Your task to perform on an android device: Search for logitech g pro on walmart, select the first entry, add it to the cart, then select checkout. Image 0: 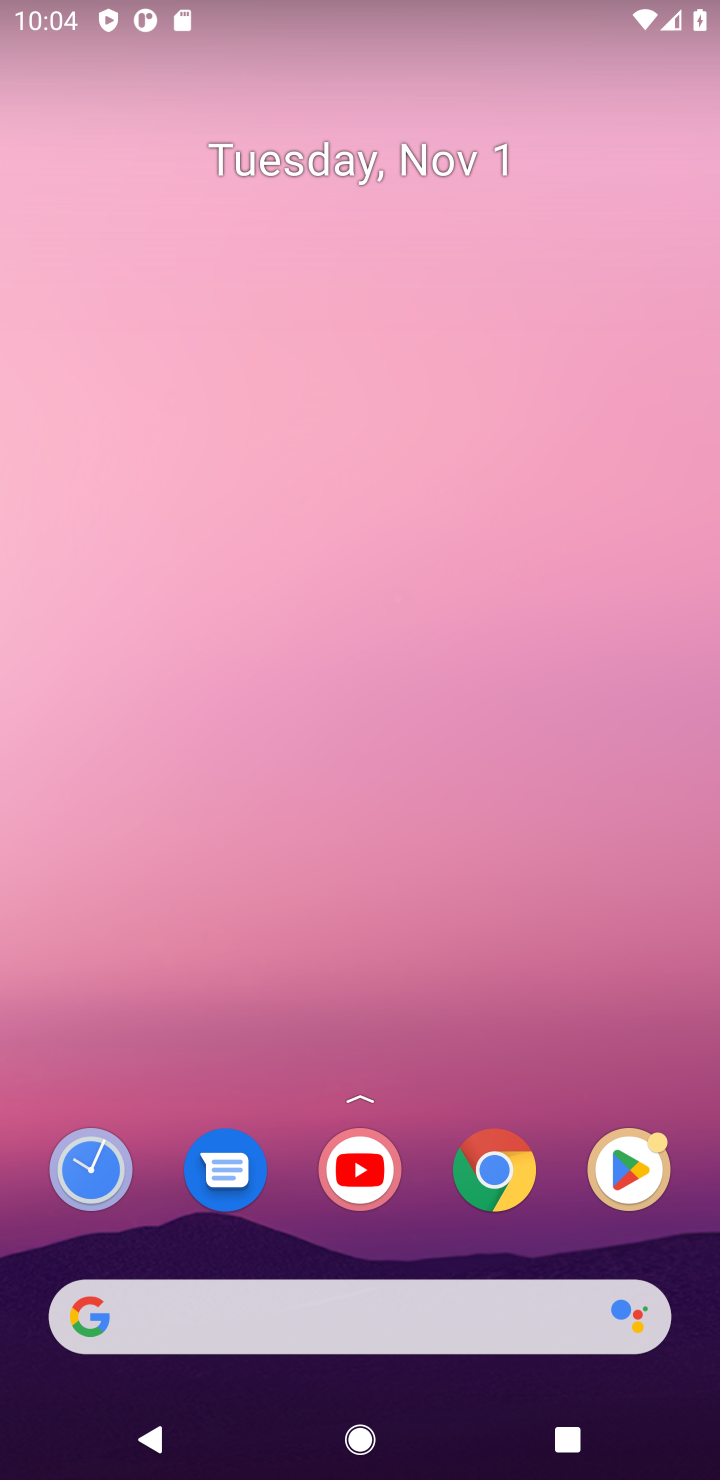
Step 0: press home button
Your task to perform on an android device: Search for logitech g pro on walmart, select the first entry, add it to the cart, then select checkout. Image 1: 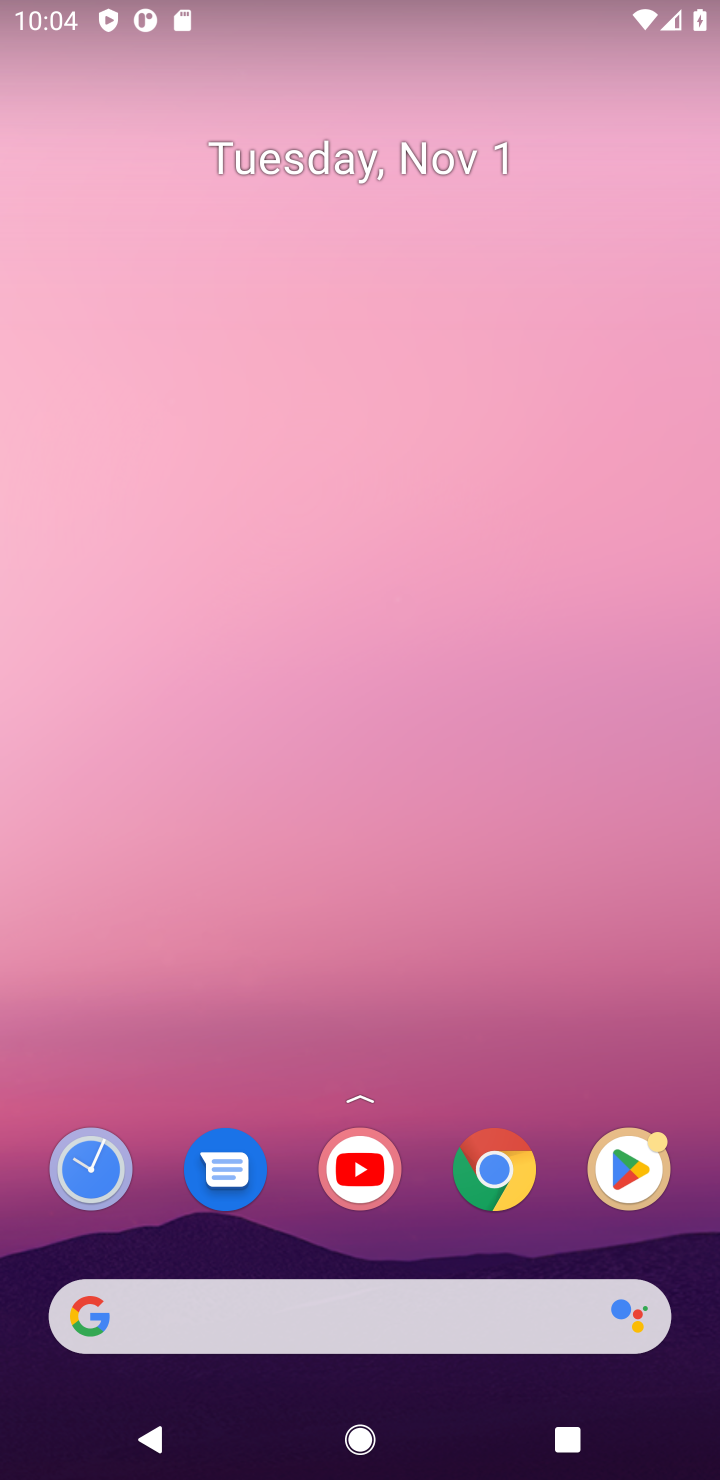
Step 1: click (495, 1171)
Your task to perform on an android device: Search for logitech g pro on walmart, select the first entry, add it to the cart, then select checkout. Image 2: 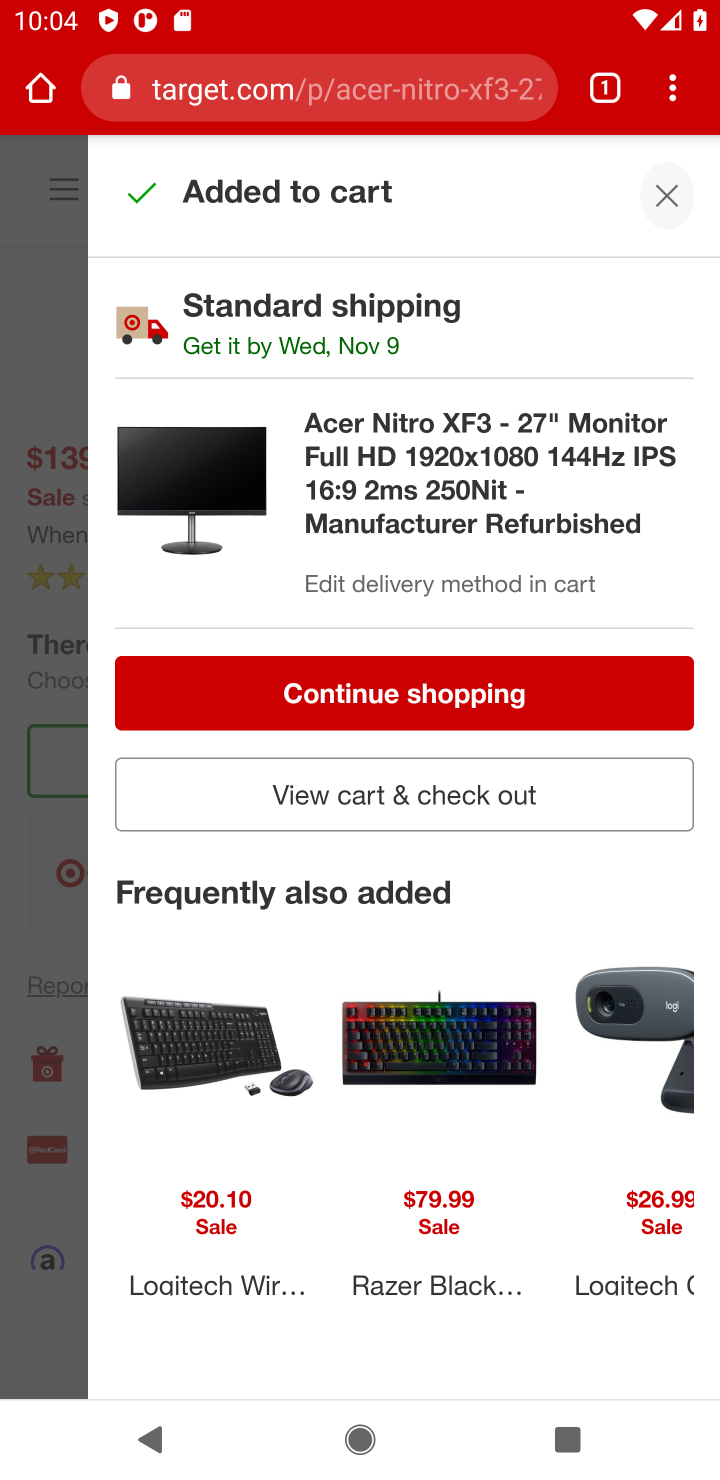
Step 2: click (393, 87)
Your task to perform on an android device: Search for logitech g pro on walmart, select the first entry, add it to the cart, then select checkout. Image 3: 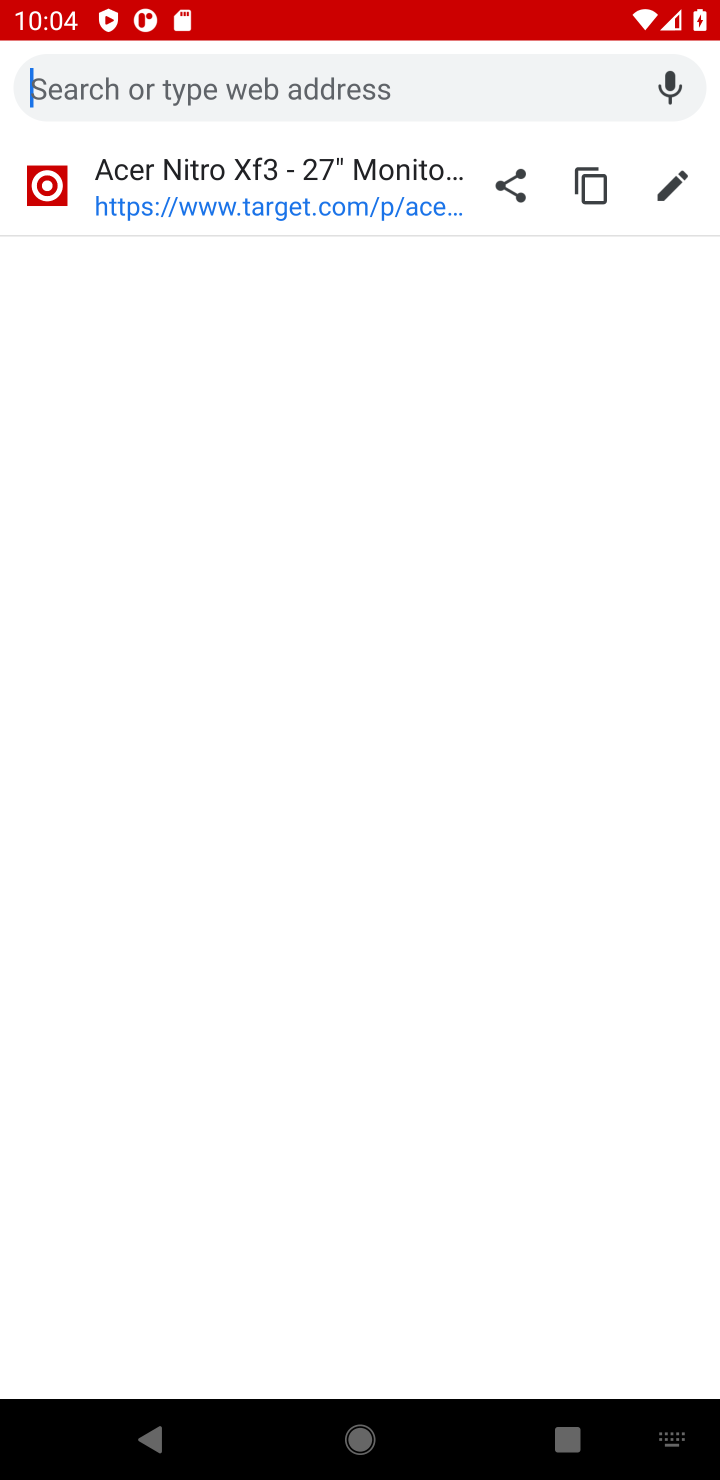
Step 3: press enter
Your task to perform on an android device: Search for logitech g pro on walmart, select the first entry, add it to the cart, then select checkout. Image 4: 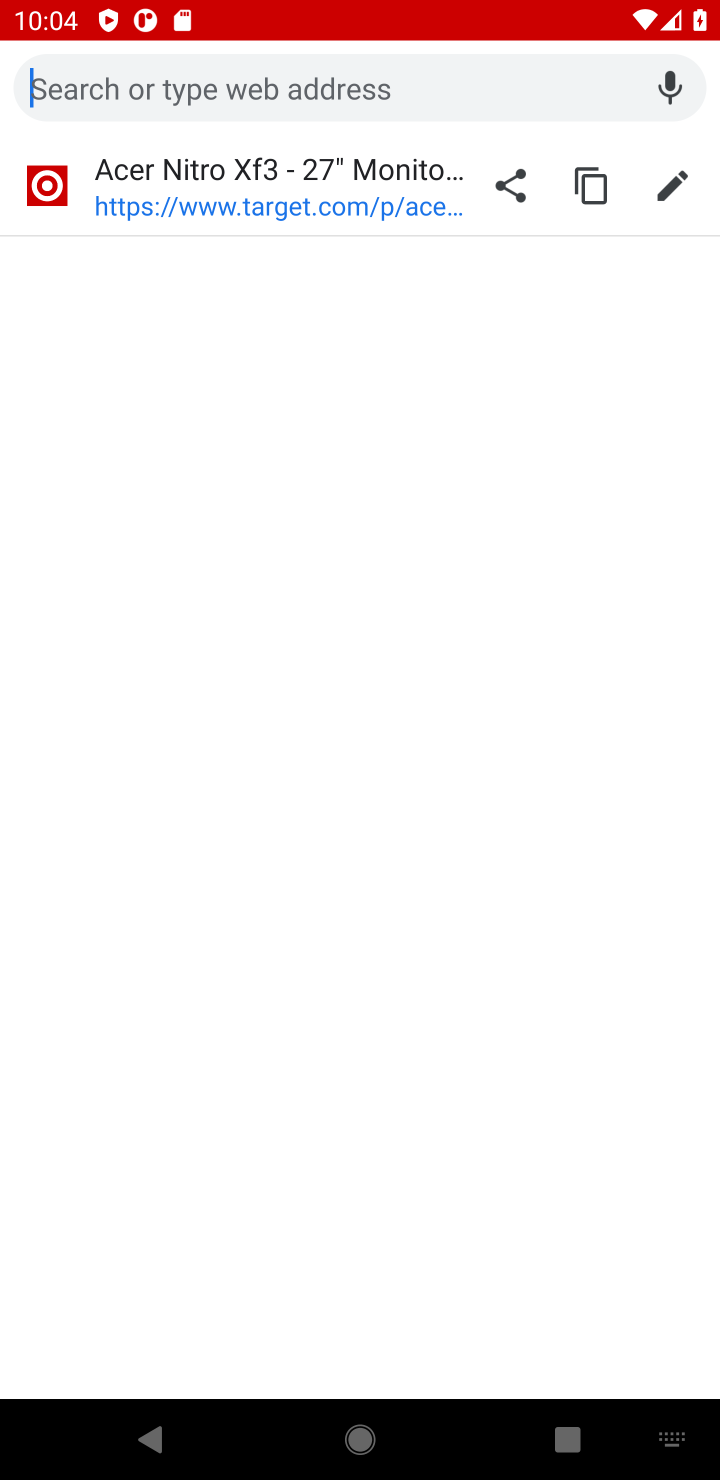
Step 4: type "walmart"
Your task to perform on an android device: Search for logitech g pro on walmart, select the first entry, add it to the cart, then select checkout. Image 5: 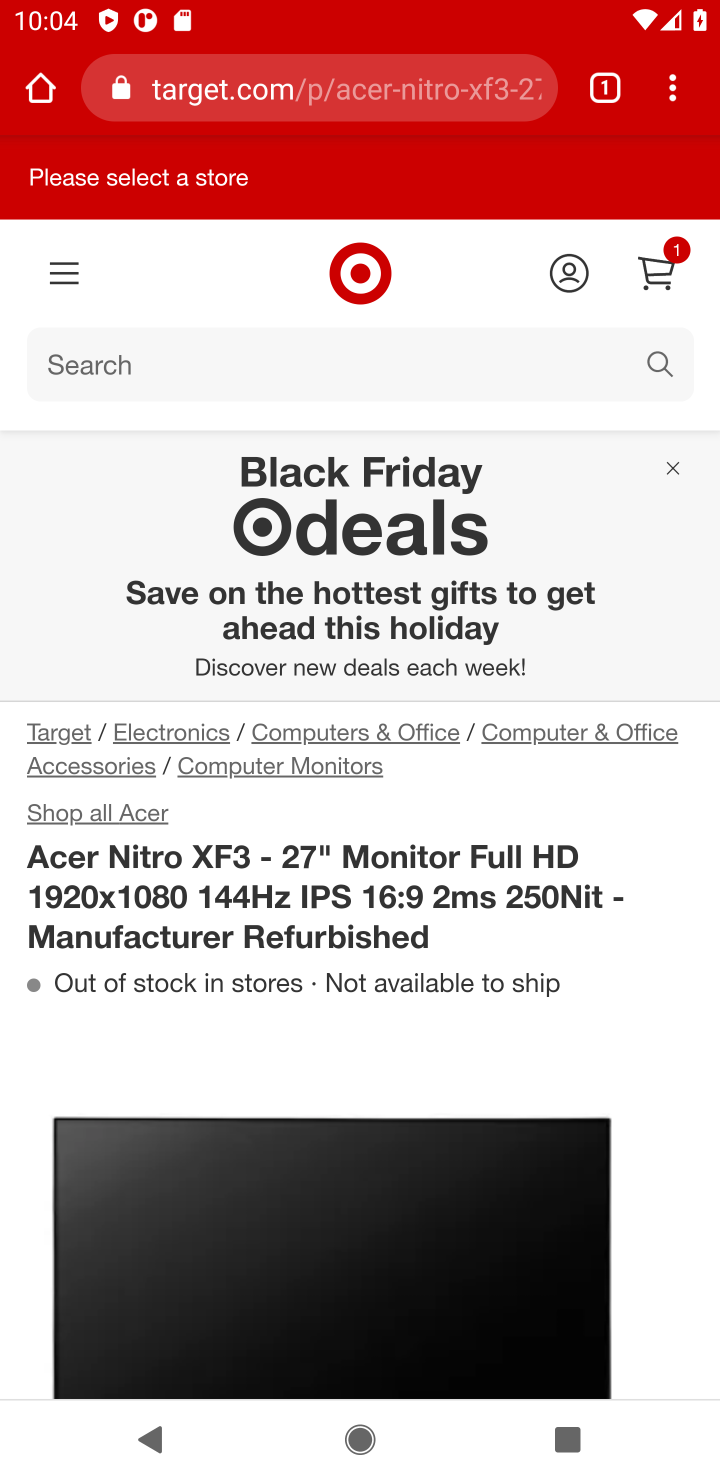
Step 5: click (345, 71)
Your task to perform on an android device: Search for logitech g pro on walmart, select the first entry, add it to the cart, then select checkout. Image 6: 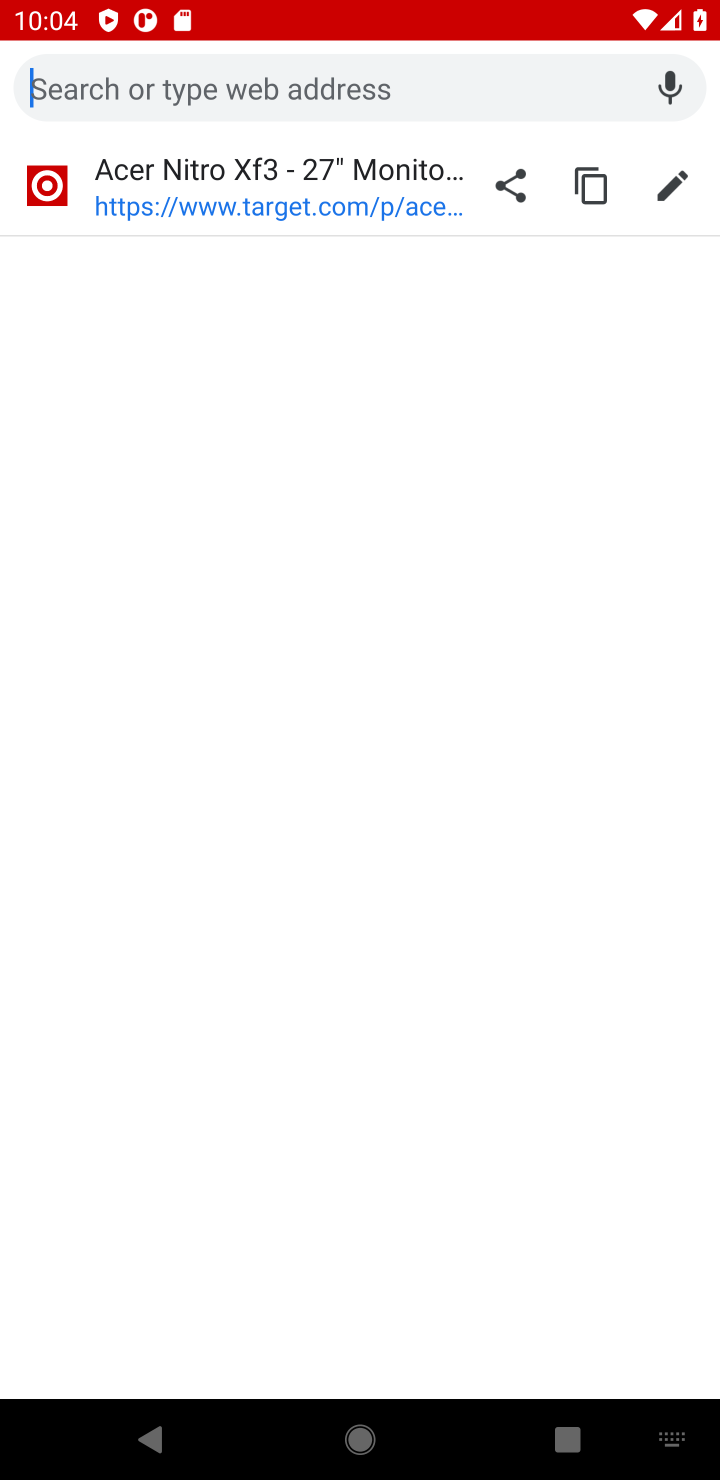
Step 6: type "walmart"
Your task to perform on an android device: Search for logitech g pro on walmart, select the first entry, add it to the cart, then select checkout. Image 7: 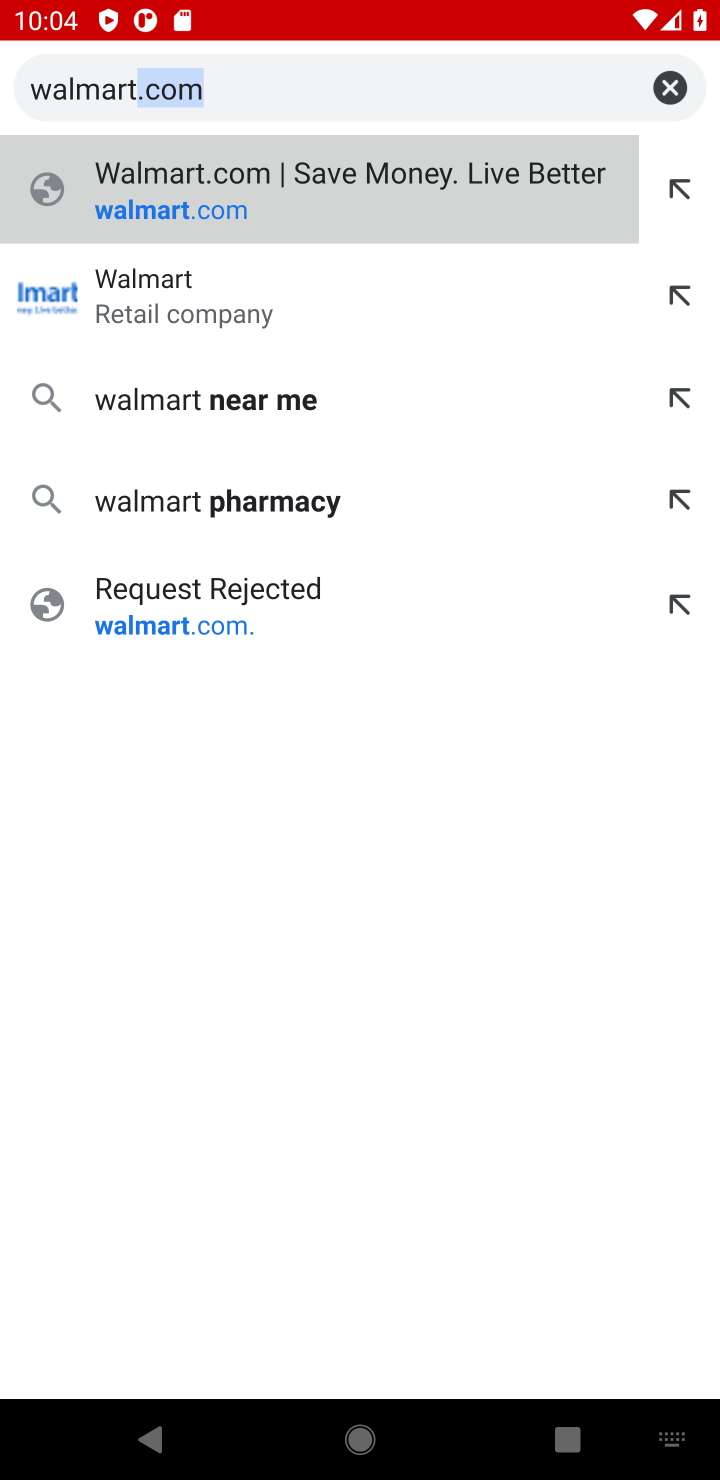
Step 7: press enter
Your task to perform on an android device: Search for logitech g pro on walmart, select the first entry, add it to the cart, then select checkout. Image 8: 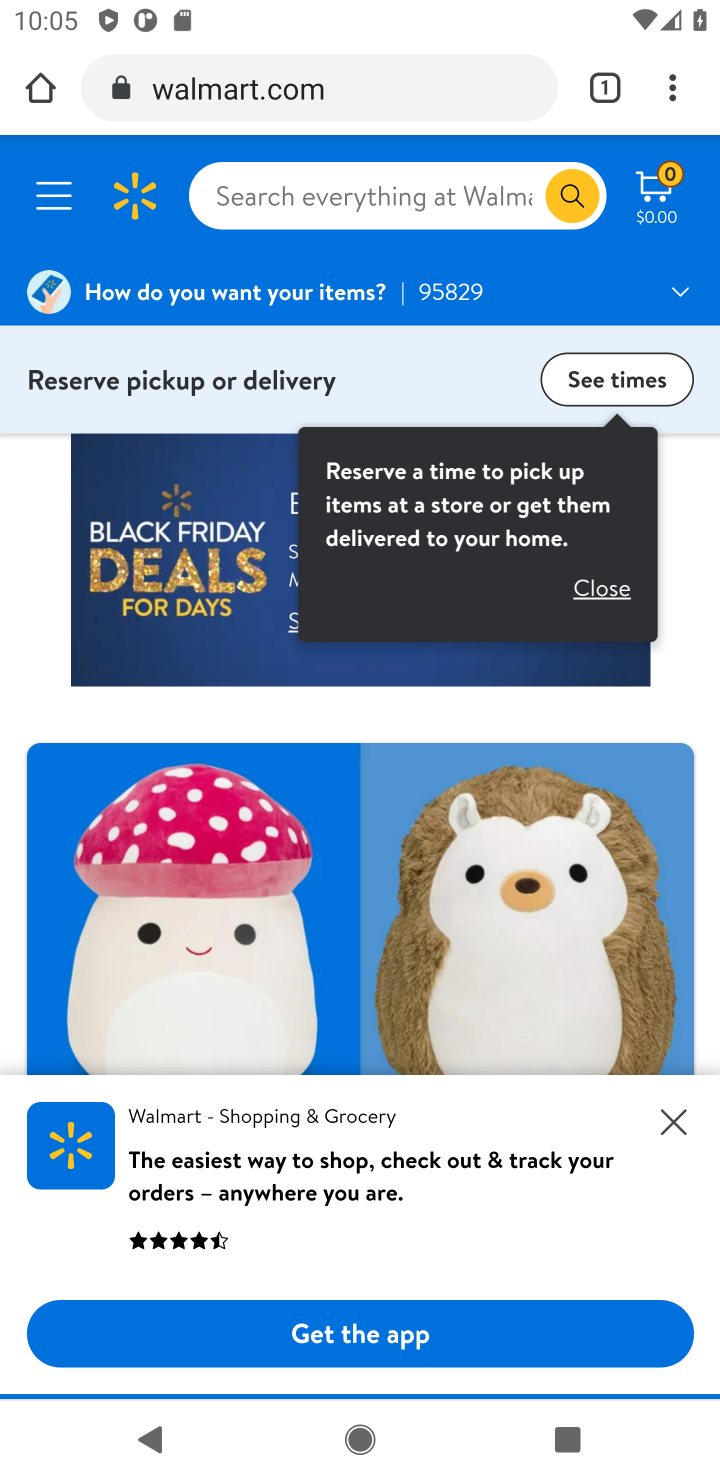
Step 8: click (281, 187)
Your task to perform on an android device: Search for logitech g pro on walmart, select the first entry, add it to the cart, then select checkout. Image 9: 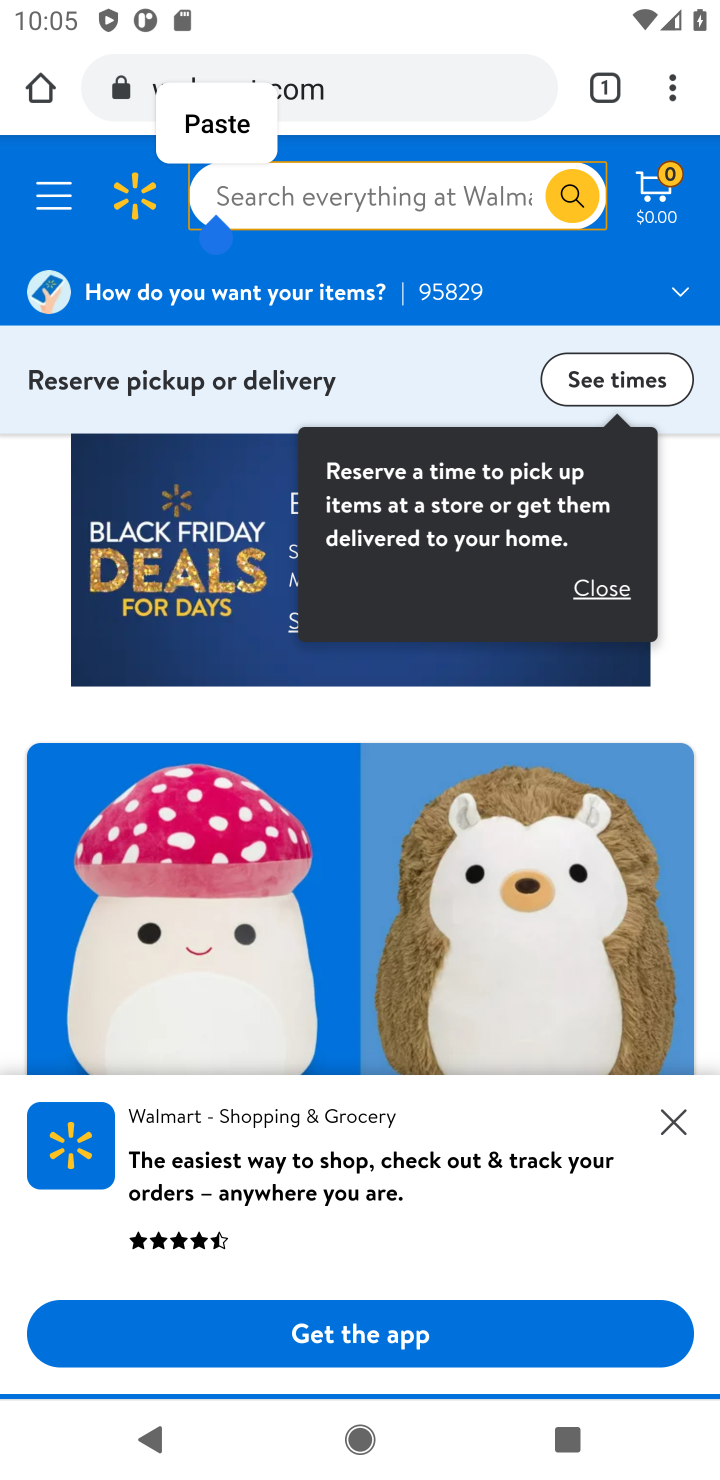
Step 9: type "logitech g pro "
Your task to perform on an android device: Search for logitech g pro on walmart, select the first entry, add it to the cart, then select checkout. Image 10: 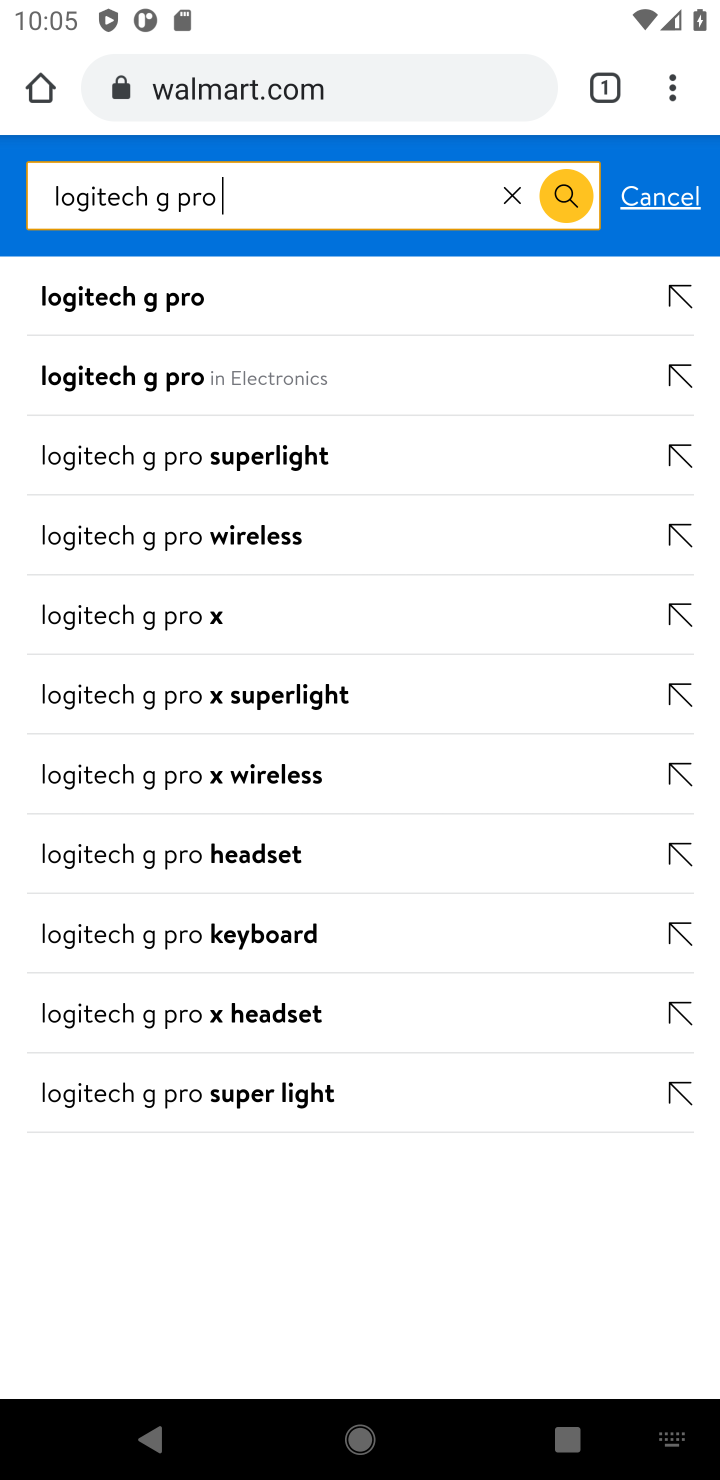
Step 10: click (115, 285)
Your task to perform on an android device: Search for logitech g pro on walmart, select the first entry, add it to the cart, then select checkout. Image 11: 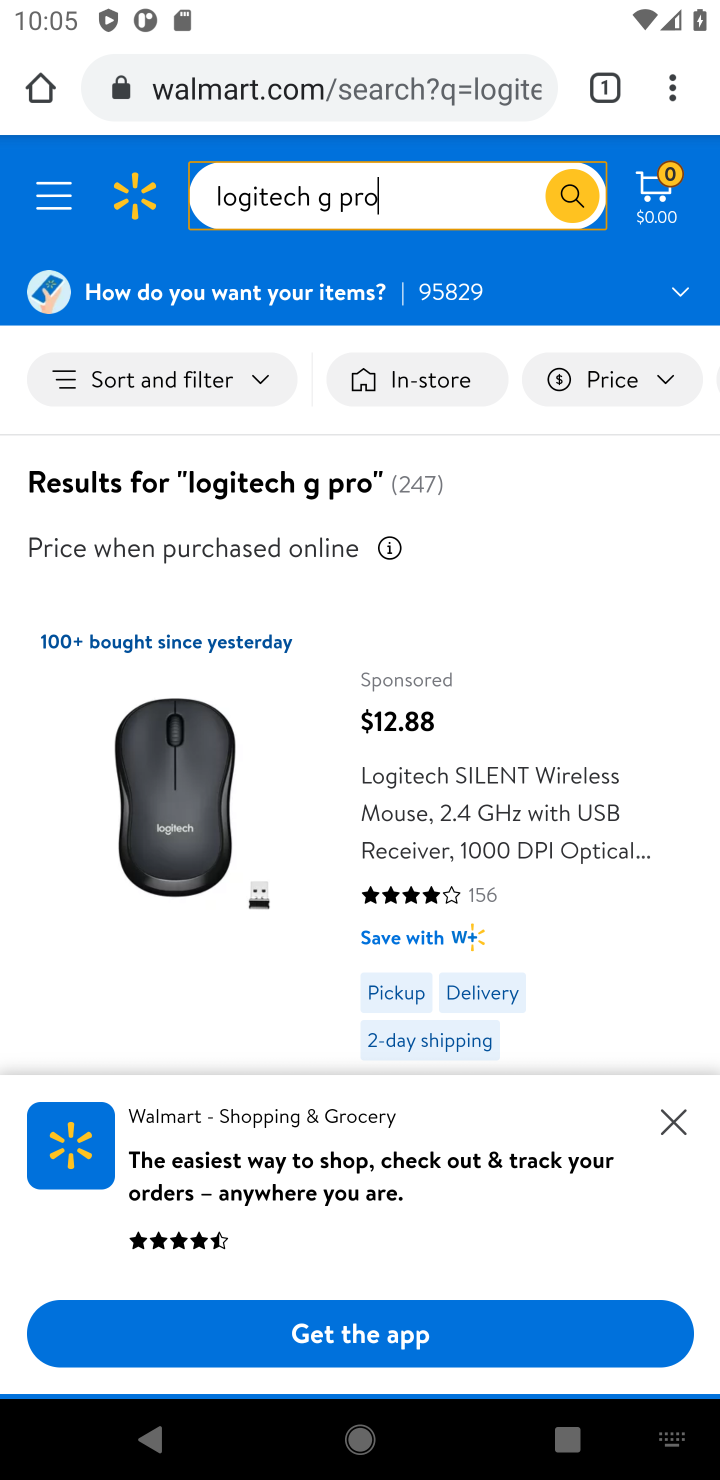
Step 11: click (680, 1108)
Your task to perform on an android device: Search for logitech g pro on walmart, select the first entry, add it to the cart, then select checkout. Image 12: 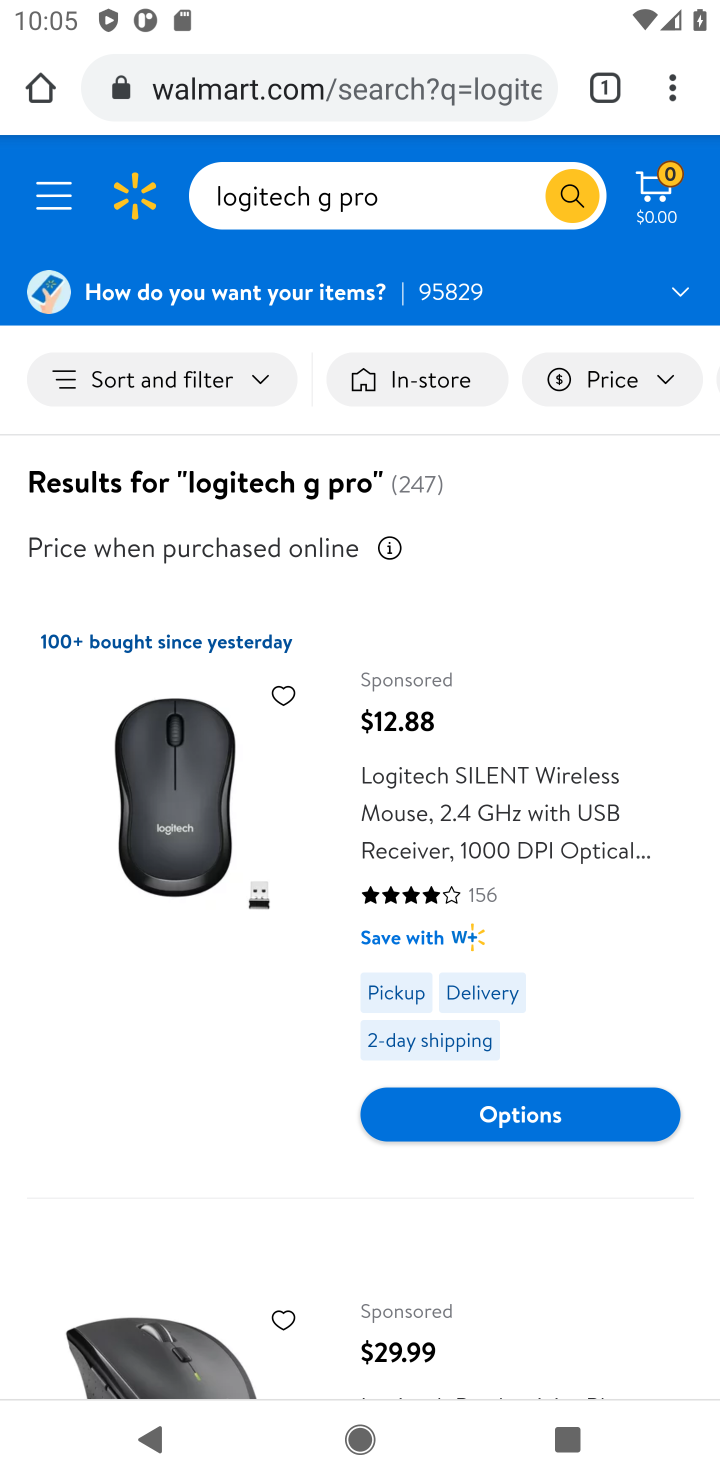
Step 12: drag from (181, 1027) to (135, 419)
Your task to perform on an android device: Search for logitech g pro on walmart, select the first entry, add it to the cart, then select checkout. Image 13: 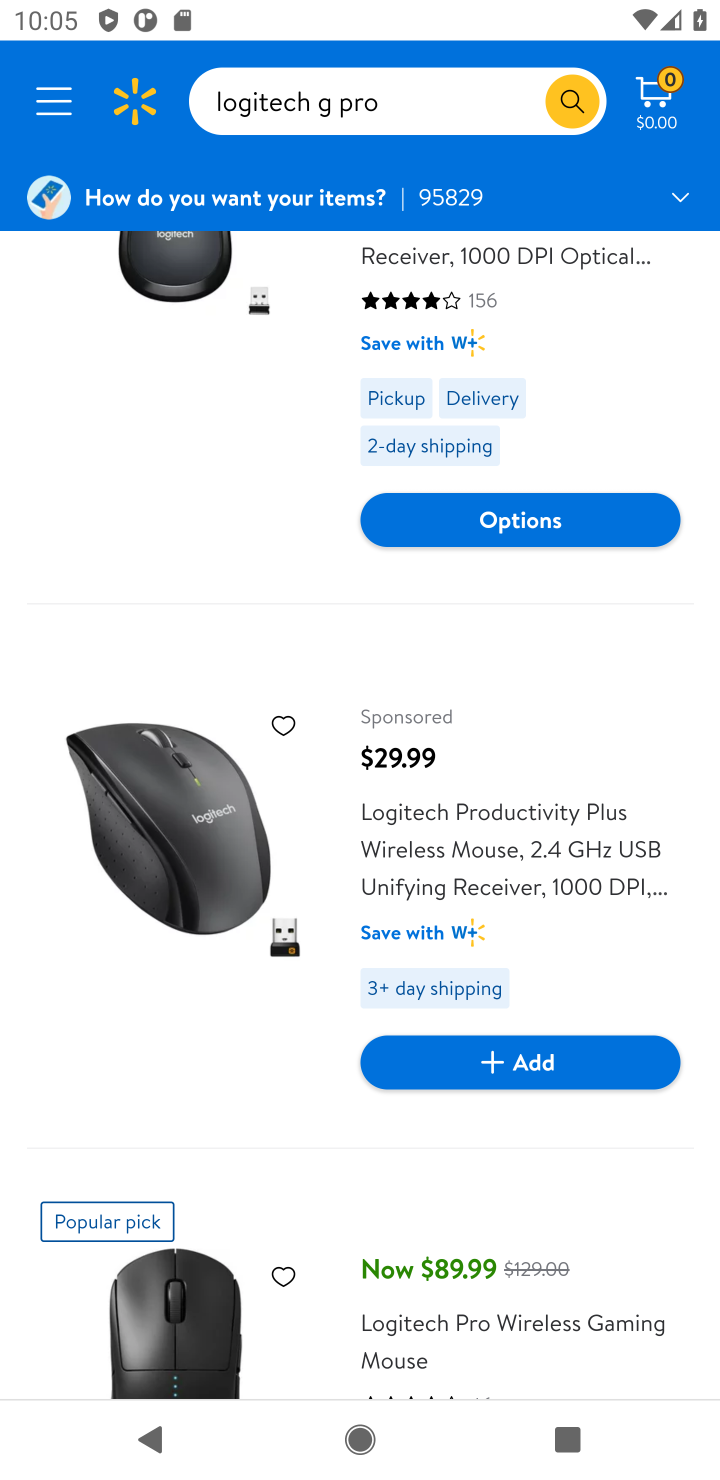
Step 13: click (204, 1339)
Your task to perform on an android device: Search for logitech g pro on walmart, select the first entry, add it to the cart, then select checkout. Image 14: 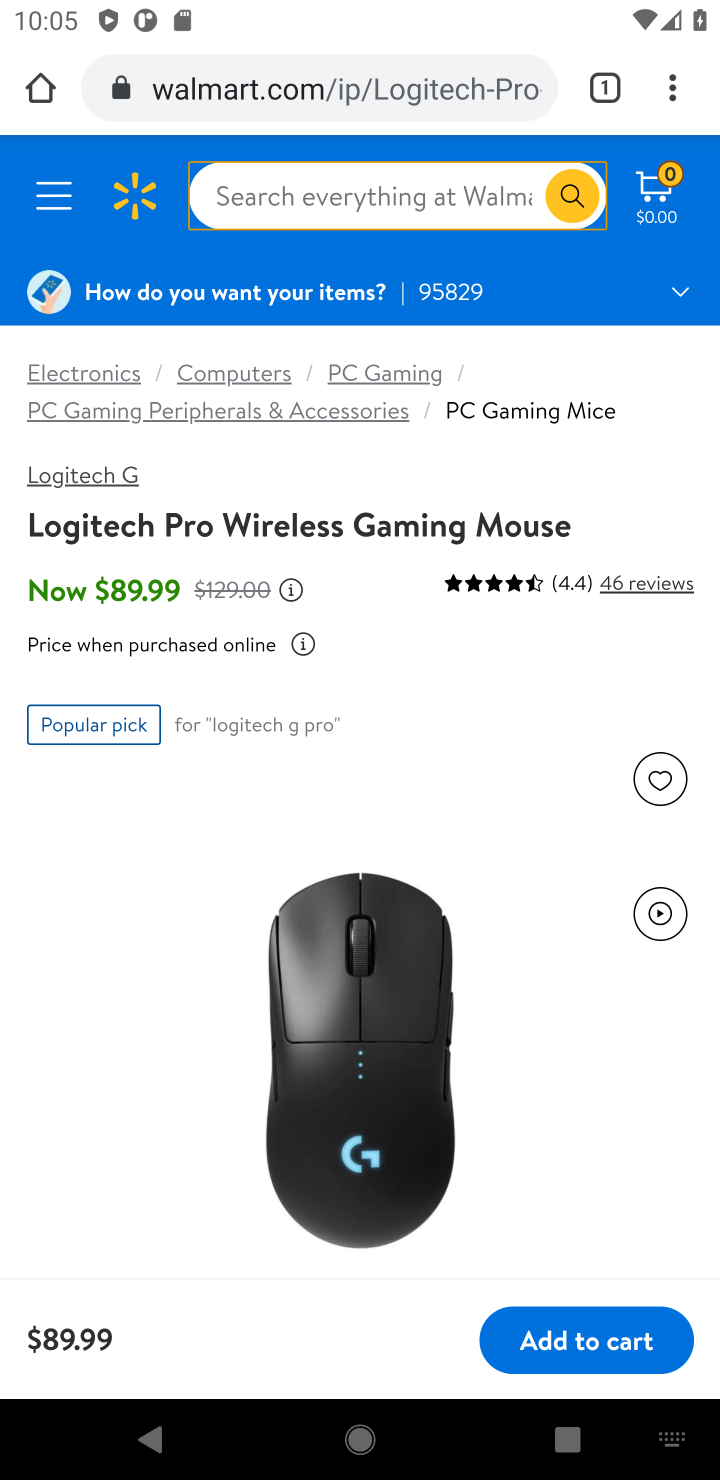
Step 14: drag from (523, 1101) to (417, 657)
Your task to perform on an android device: Search for logitech g pro on walmart, select the first entry, add it to the cart, then select checkout. Image 15: 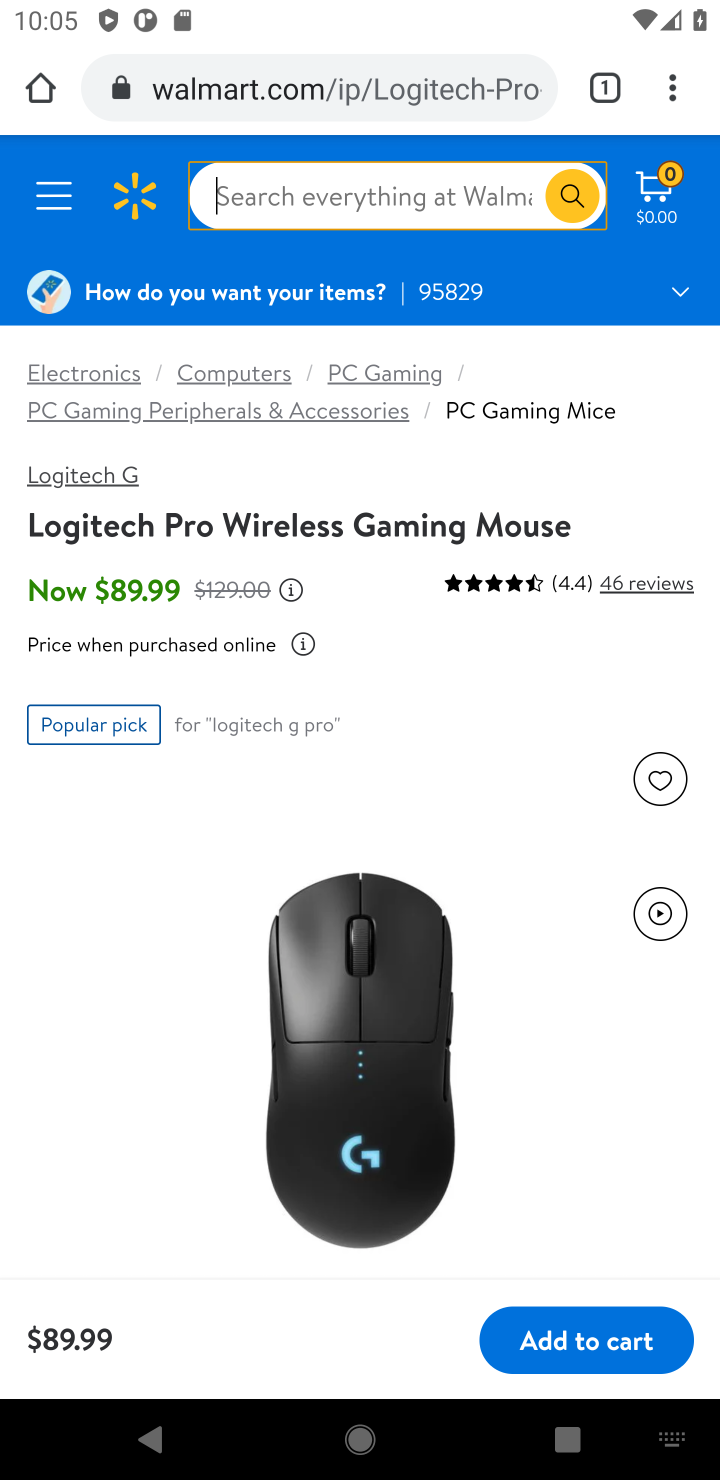
Step 15: click (583, 1347)
Your task to perform on an android device: Search for logitech g pro on walmart, select the first entry, add it to the cart, then select checkout. Image 16: 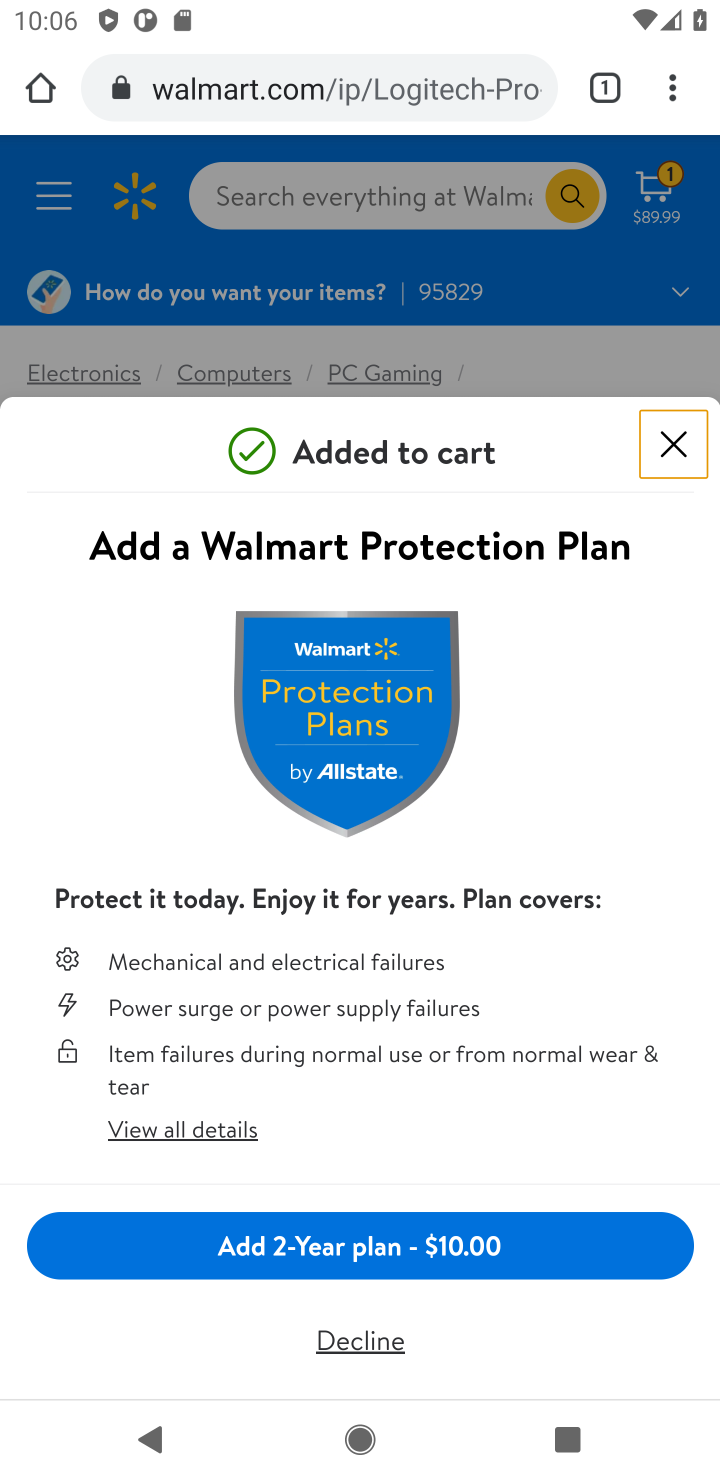
Step 16: click (680, 450)
Your task to perform on an android device: Search for logitech g pro on walmart, select the first entry, add it to the cart, then select checkout. Image 17: 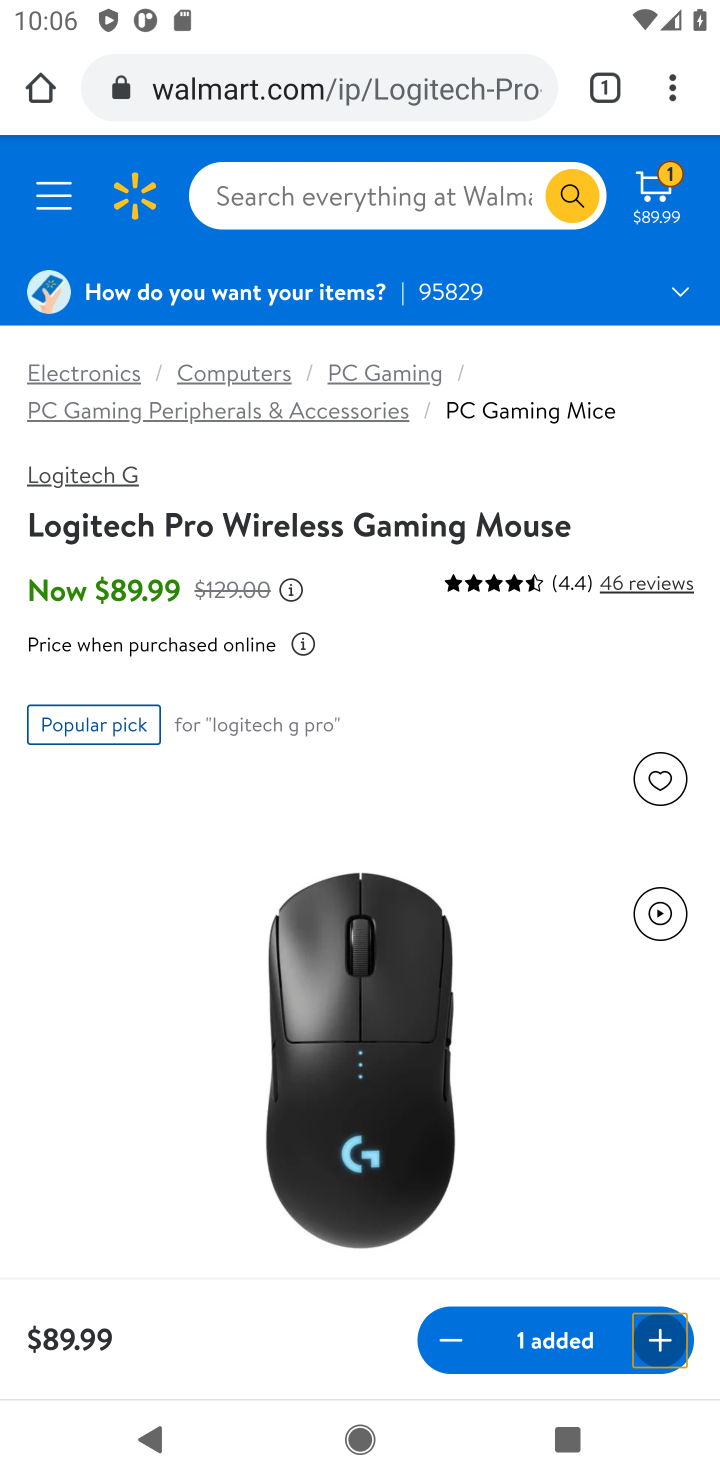
Step 17: click (659, 205)
Your task to perform on an android device: Search for logitech g pro on walmart, select the first entry, add it to the cart, then select checkout. Image 18: 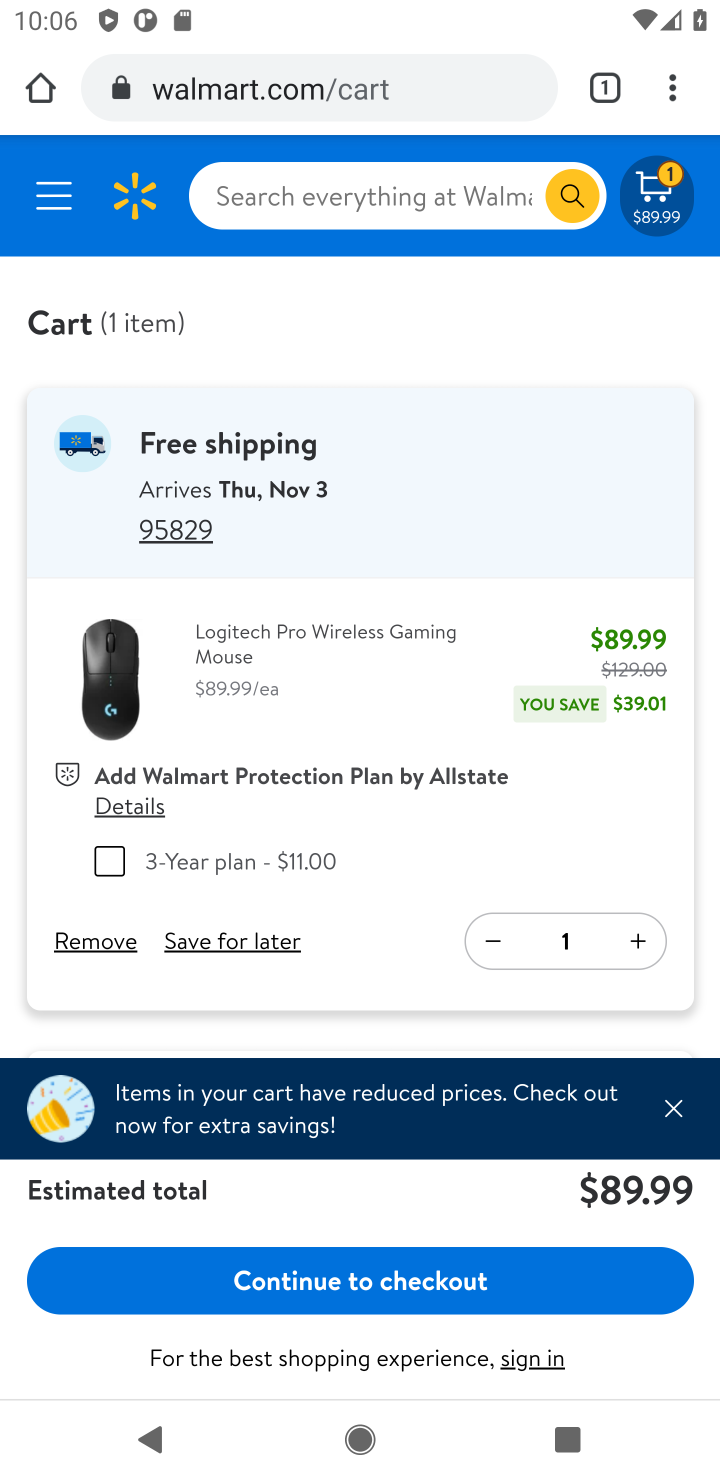
Step 18: click (488, 1275)
Your task to perform on an android device: Search for logitech g pro on walmart, select the first entry, add it to the cart, then select checkout. Image 19: 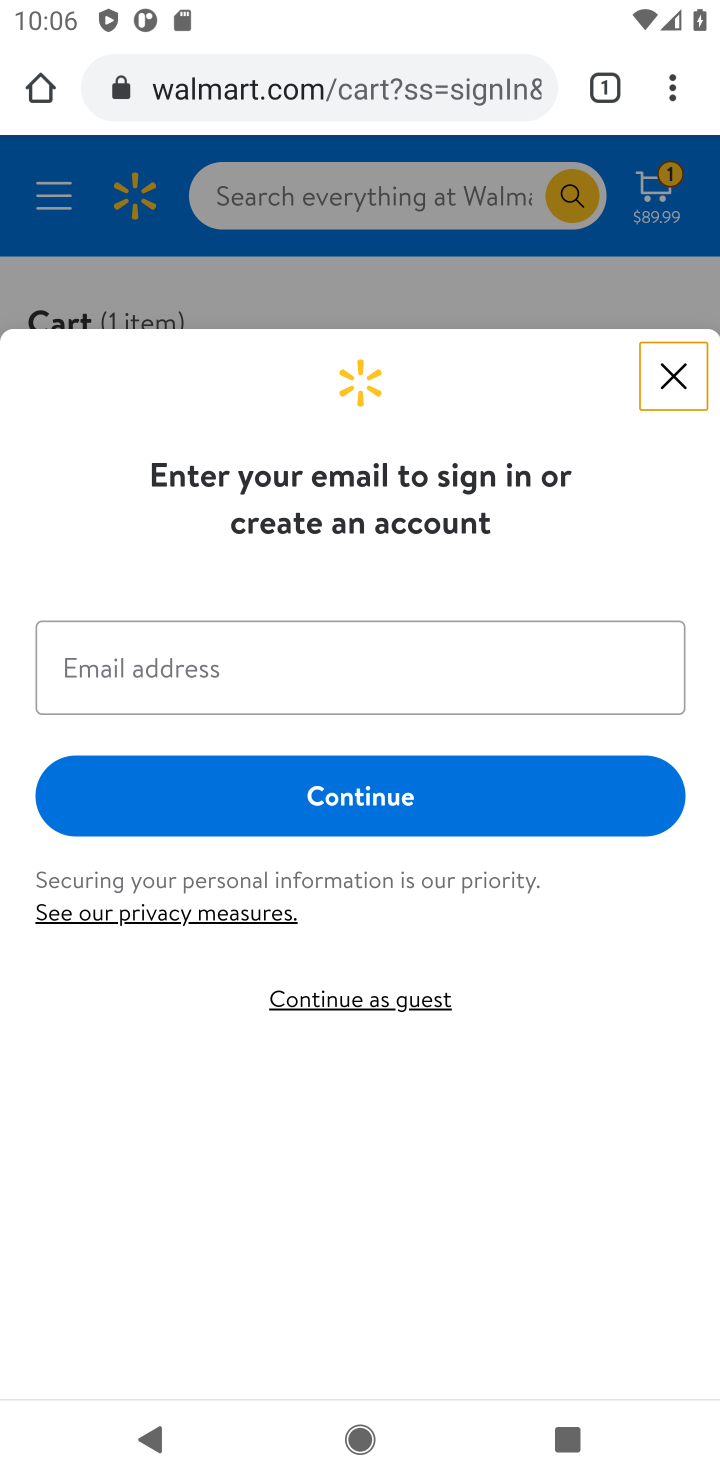
Step 19: task complete